Your task to perform on an android device: Go to sound settings Image 0: 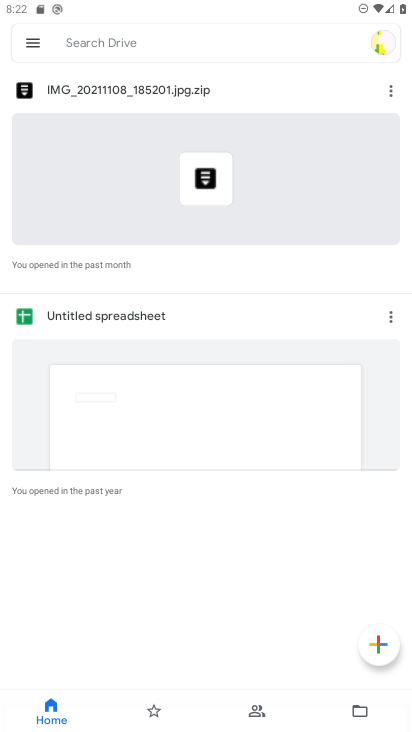
Step 0: press back button
Your task to perform on an android device: Go to sound settings Image 1: 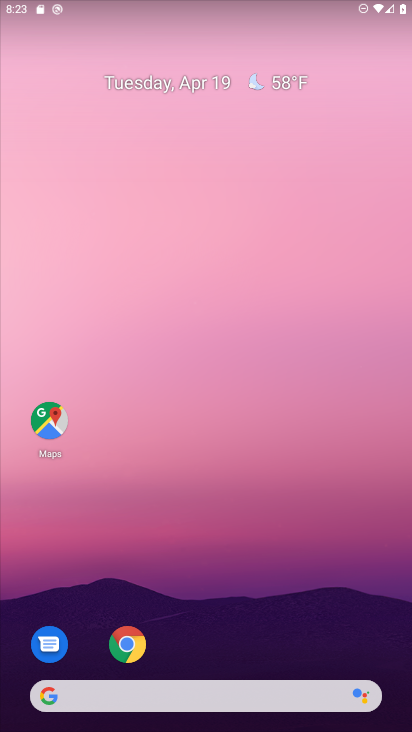
Step 1: drag from (172, 647) to (234, 193)
Your task to perform on an android device: Go to sound settings Image 2: 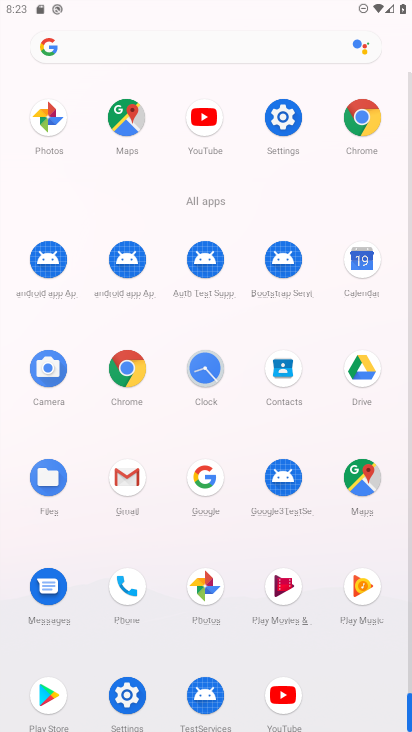
Step 2: click (129, 698)
Your task to perform on an android device: Go to sound settings Image 3: 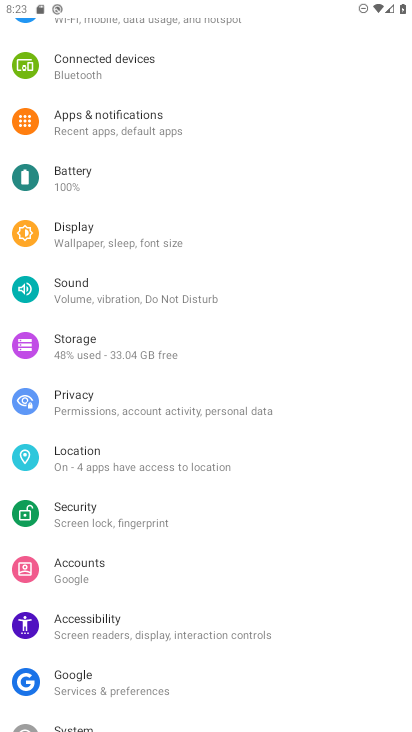
Step 3: click (88, 289)
Your task to perform on an android device: Go to sound settings Image 4: 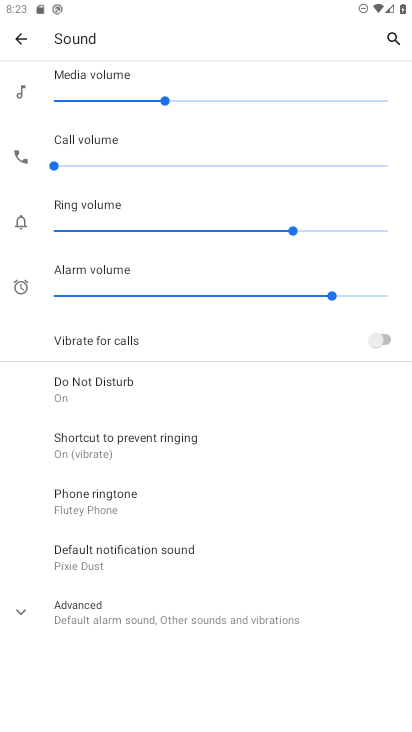
Step 4: task complete